Your task to perform on an android device: Add "acer predator" to the cart on bestbuy.com, then select checkout. Image 0: 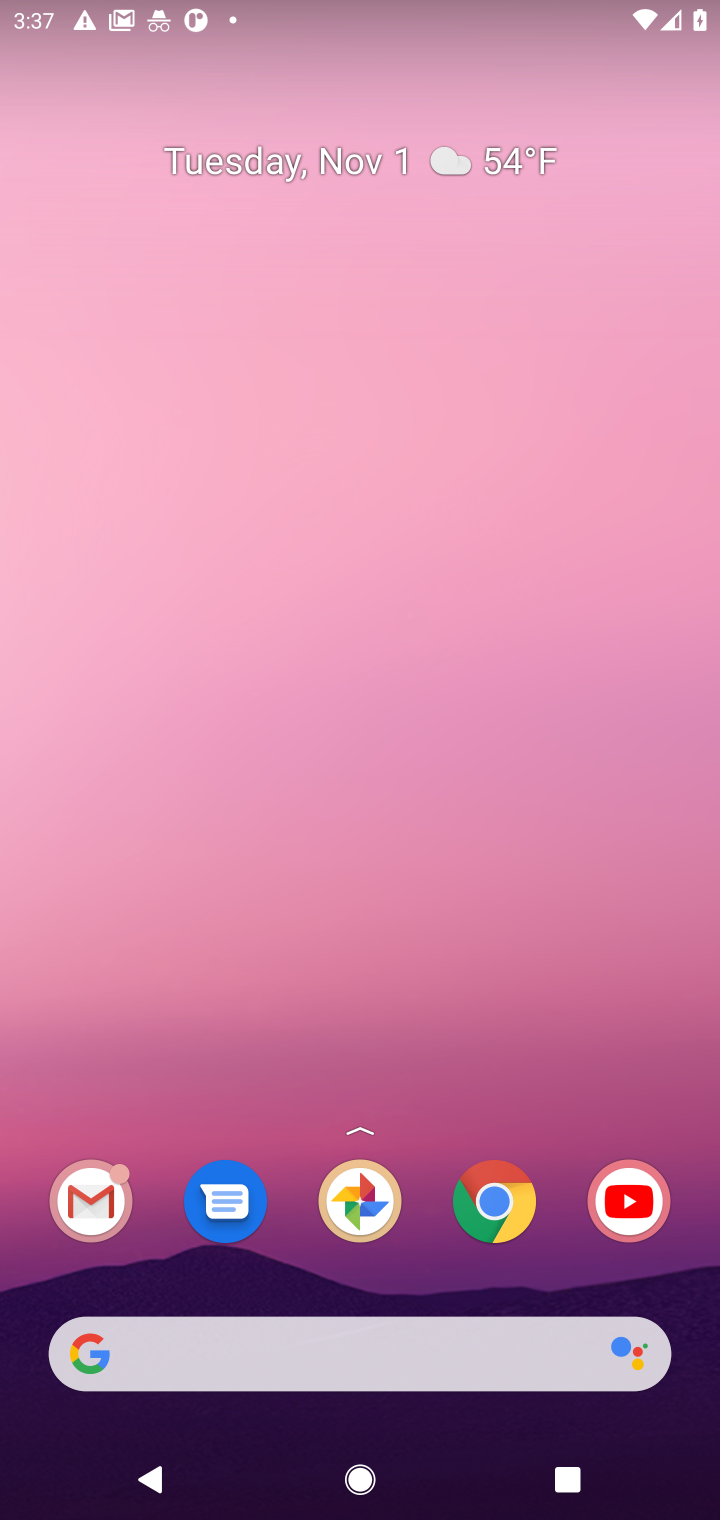
Step 0: drag from (290, 1039) to (310, 330)
Your task to perform on an android device: Add "acer predator" to the cart on bestbuy.com, then select checkout. Image 1: 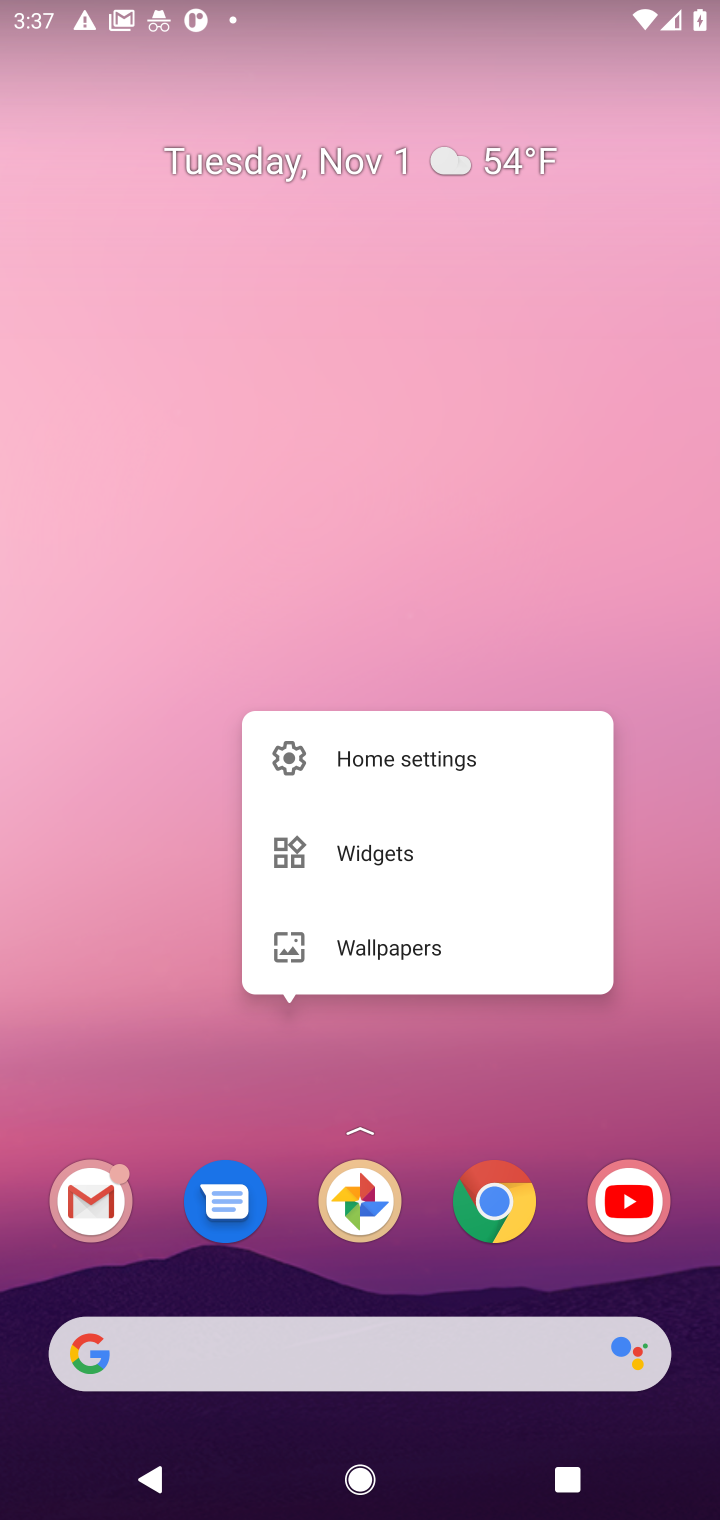
Step 1: click (191, 1076)
Your task to perform on an android device: Add "acer predator" to the cart on bestbuy.com, then select checkout. Image 2: 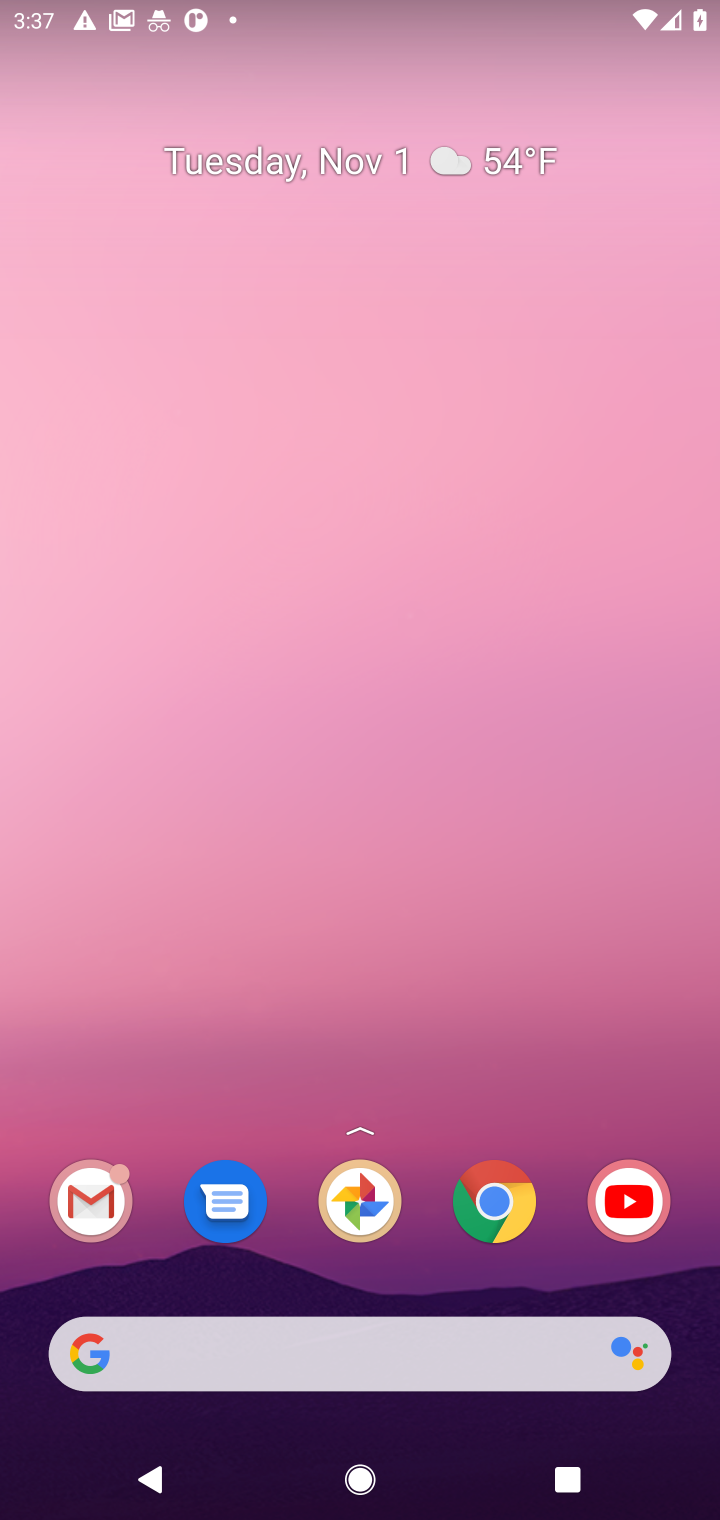
Step 2: drag from (340, 606) to (354, 372)
Your task to perform on an android device: Add "acer predator" to the cart on bestbuy.com, then select checkout. Image 3: 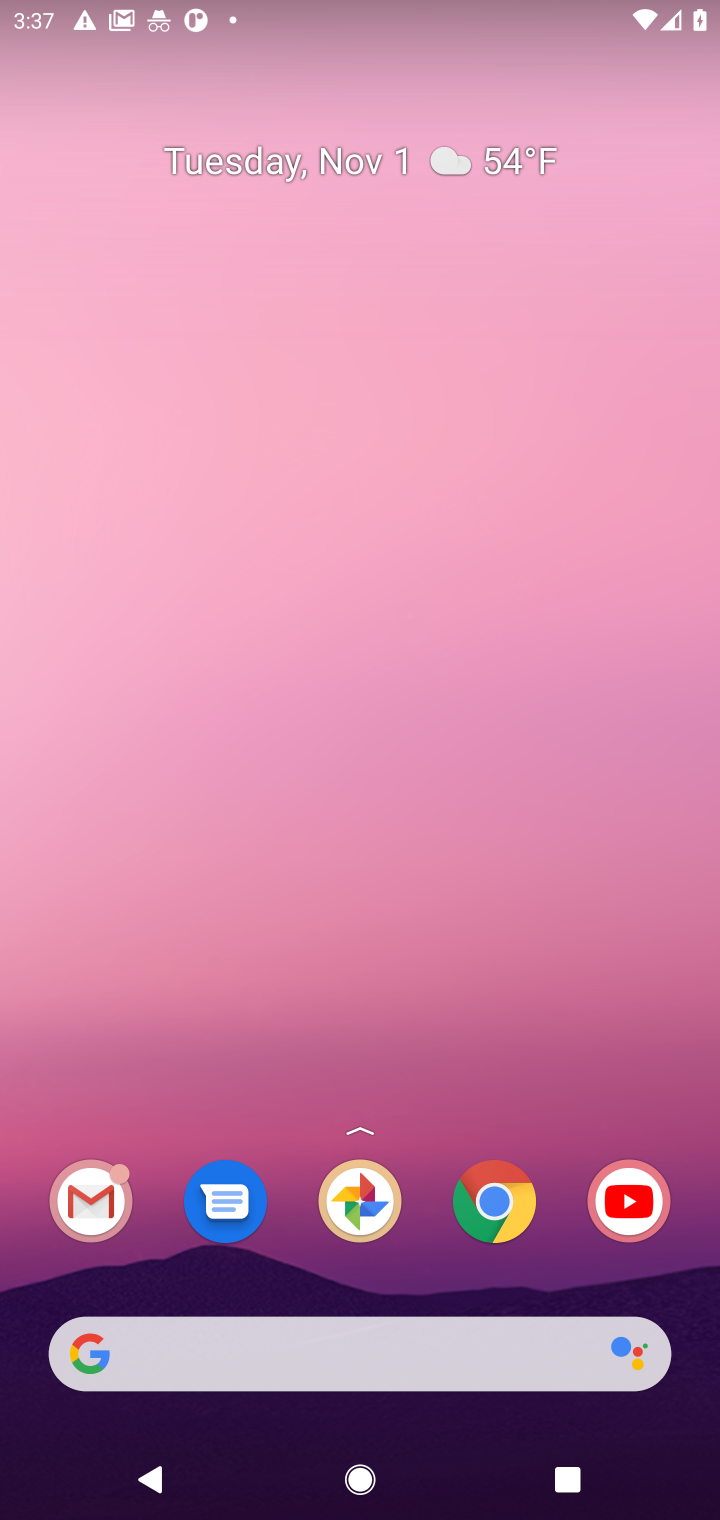
Step 3: drag from (268, 1261) to (387, 435)
Your task to perform on an android device: Add "acer predator" to the cart on bestbuy.com, then select checkout. Image 4: 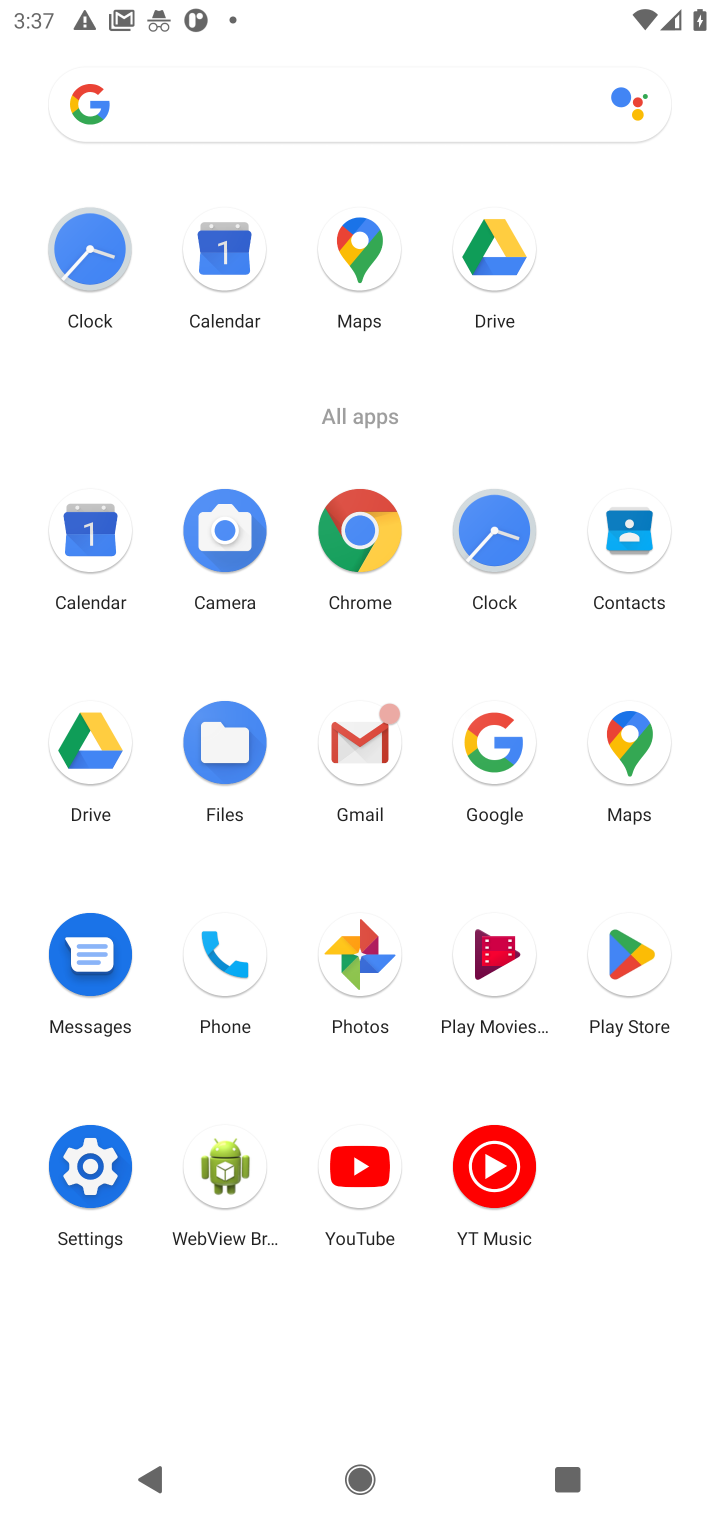
Step 4: click (498, 715)
Your task to perform on an android device: Add "acer predator" to the cart on bestbuy.com, then select checkout. Image 5: 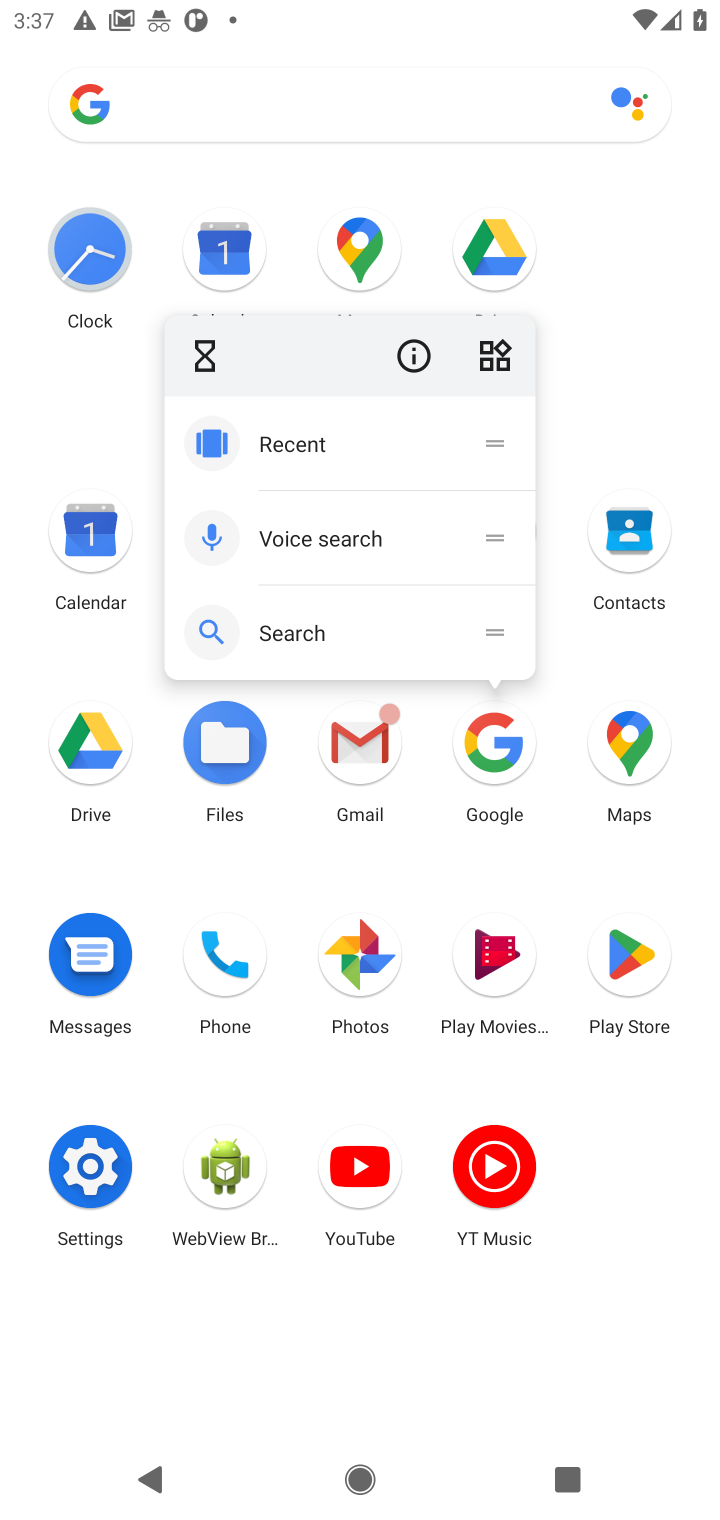
Step 5: click (490, 724)
Your task to perform on an android device: Add "acer predator" to the cart on bestbuy.com, then select checkout. Image 6: 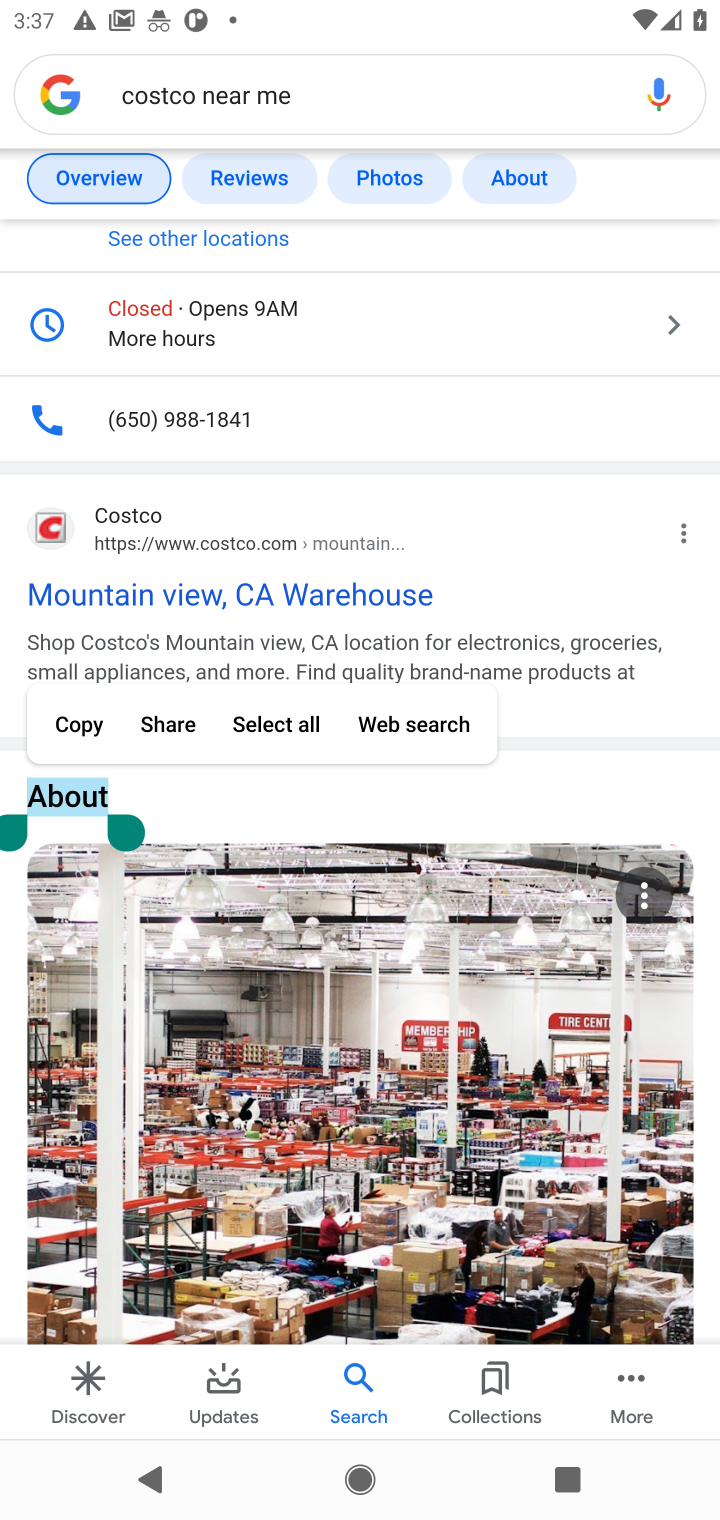
Step 6: click (375, 76)
Your task to perform on an android device: Add "acer predator" to the cart on bestbuy.com, then select checkout. Image 7: 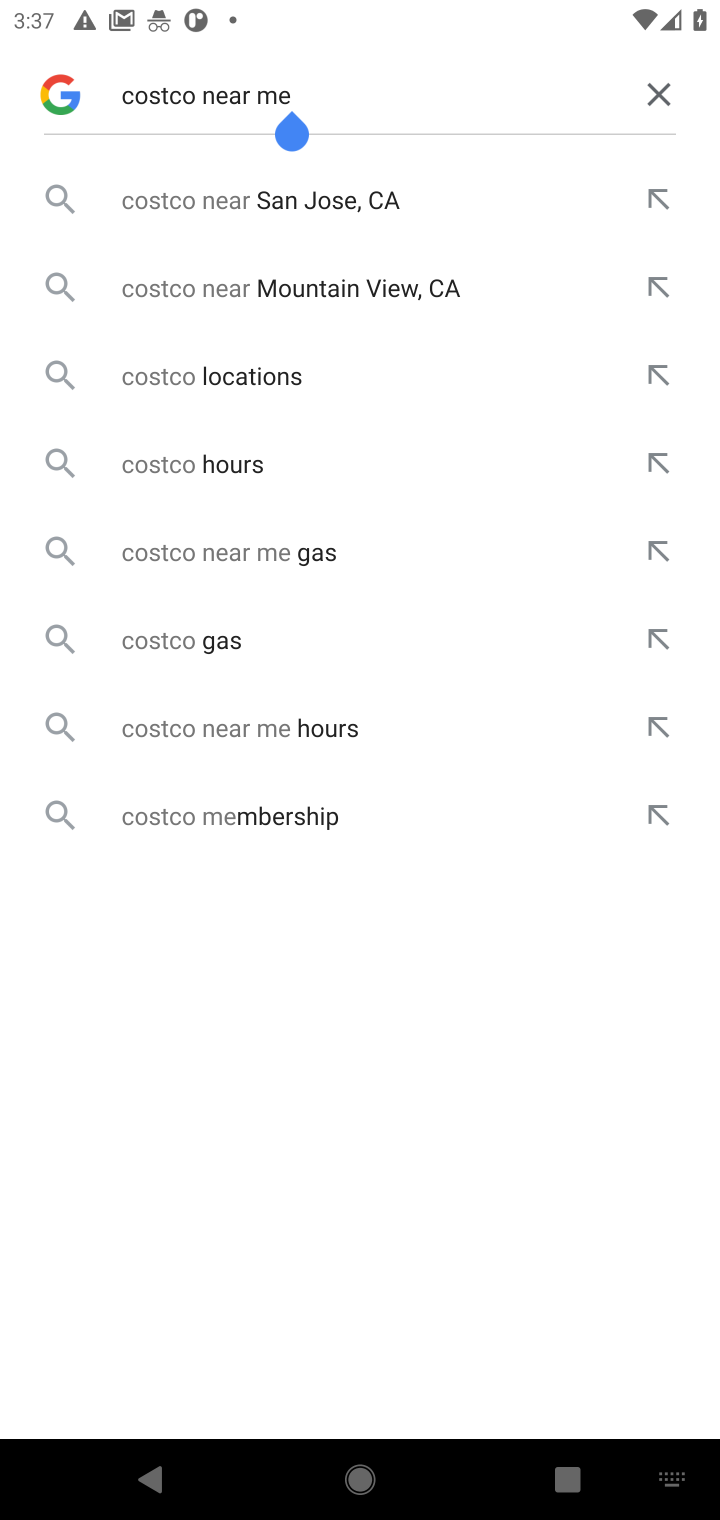
Step 7: click (637, 92)
Your task to perform on an android device: Add "acer predator" to the cart on bestbuy.com, then select checkout. Image 8: 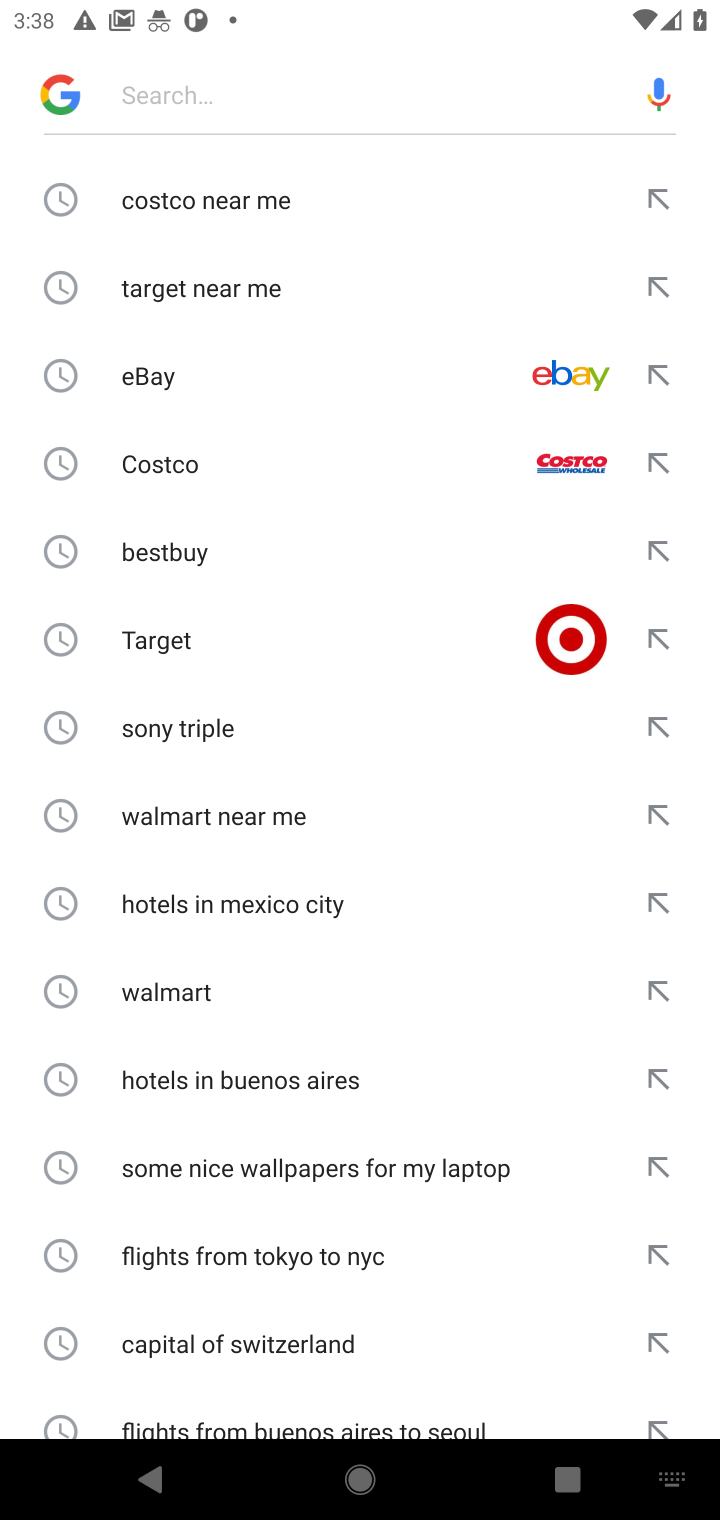
Step 8: click (293, 71)
Your task to perform on an android device: Add "acer predator" to the cart on bestbuy.com, then select checkout. Image 9: 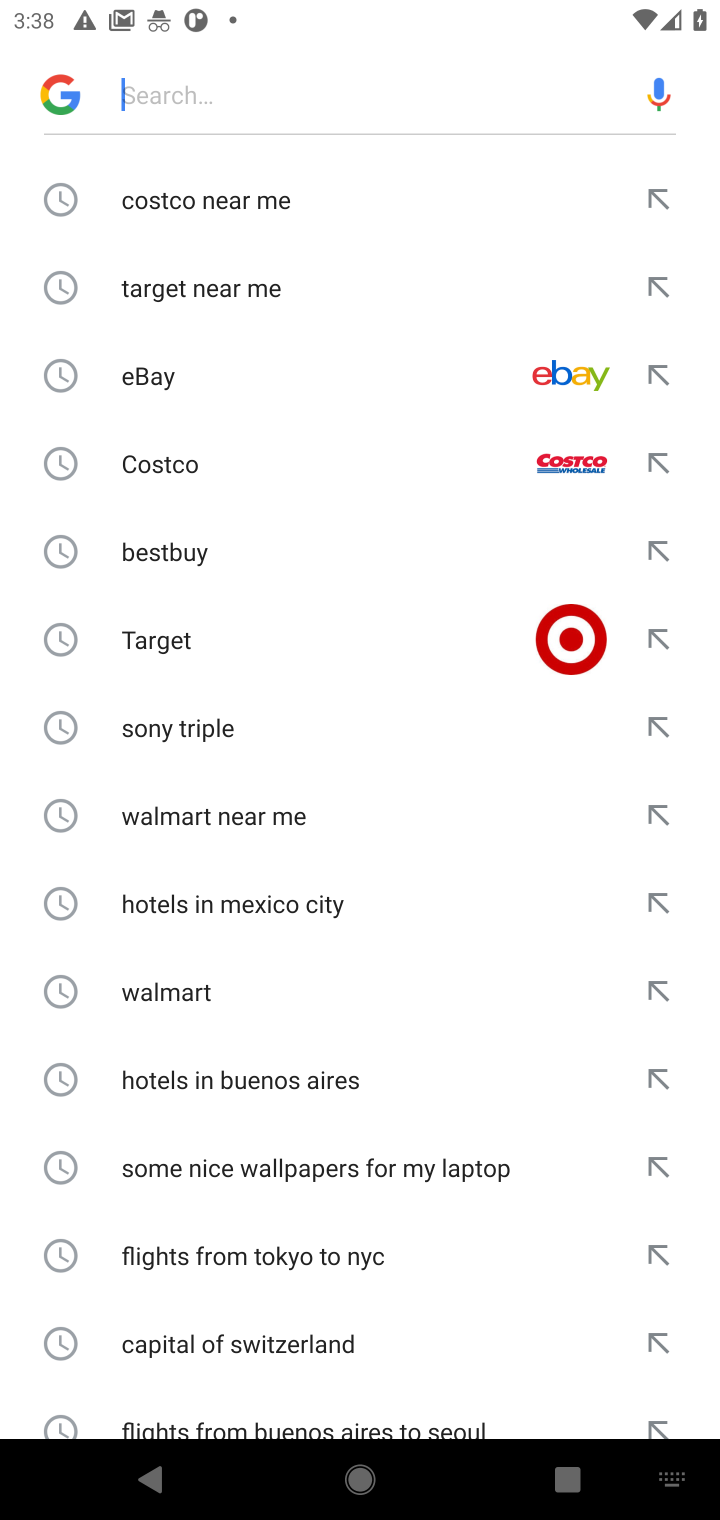
Step 9: type "bestbuy "
Your task to perform on an android device: Add "acer predator" to the cart on bestbuy.com, then select checkout. Image 10: 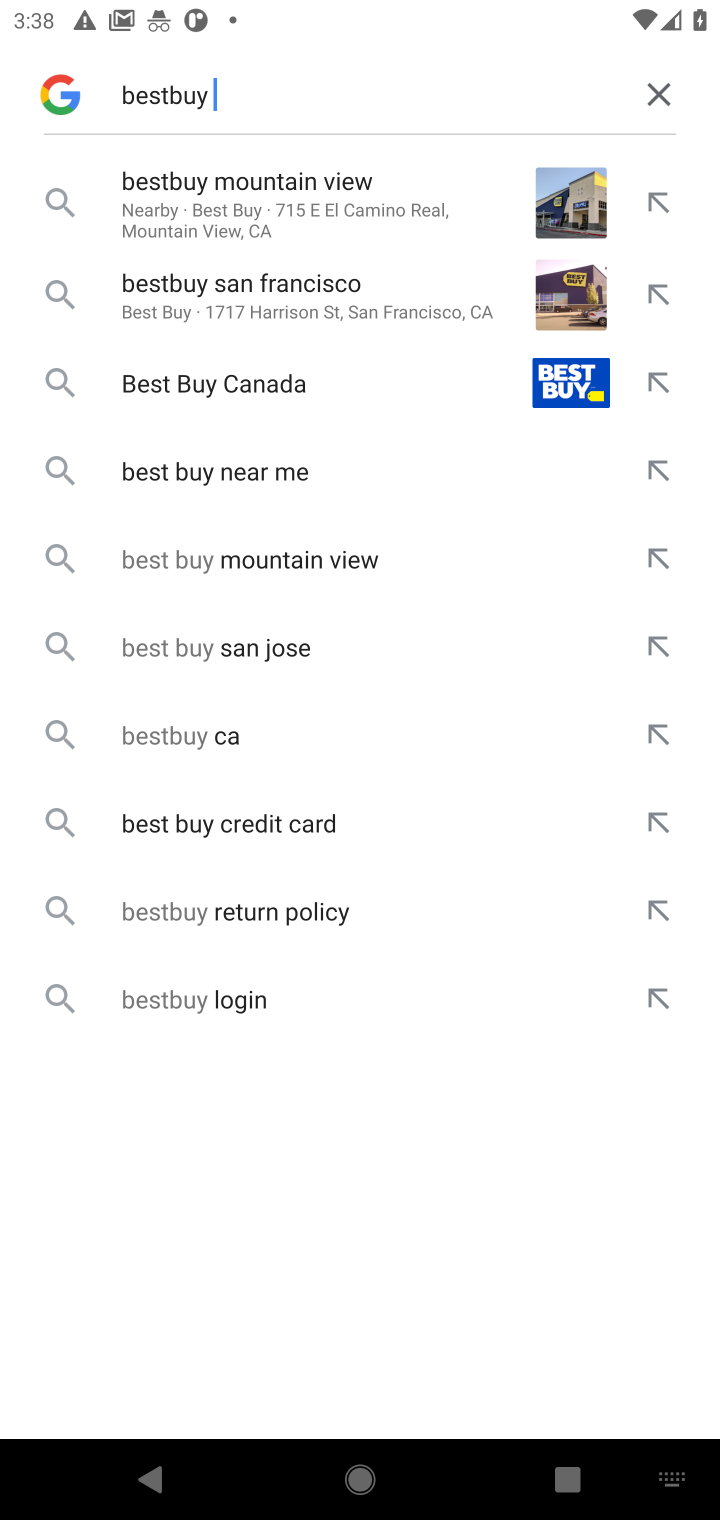
Step 10: click (200, 395)
Your task to perform on an android device: Add "acer predator" to the cart on bestbuy.com, then select checkout. Image 11: 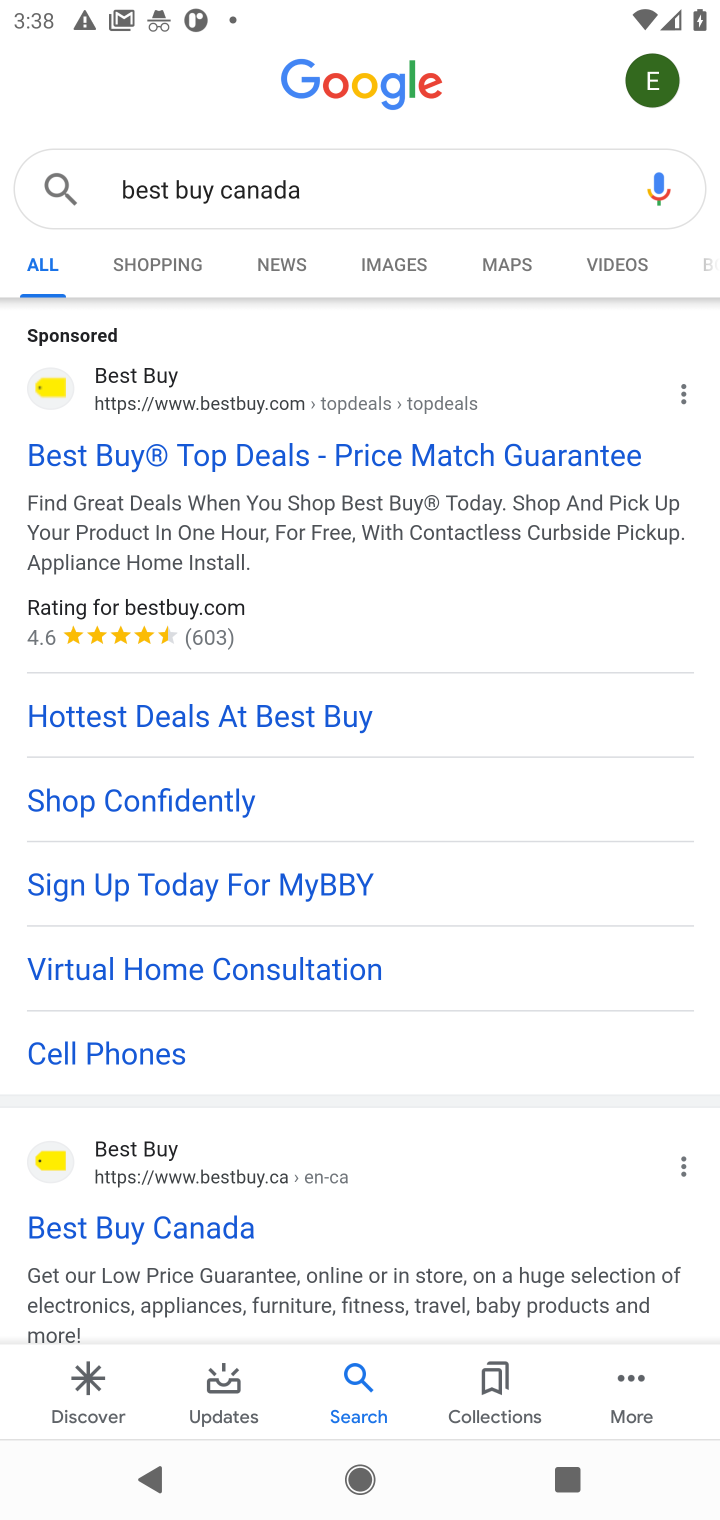
Step 11: click (163, 1224)
Your task to perform on an android device: Add "acer predator" to the cart on bestbuy.com, then select checkout. Image 12: 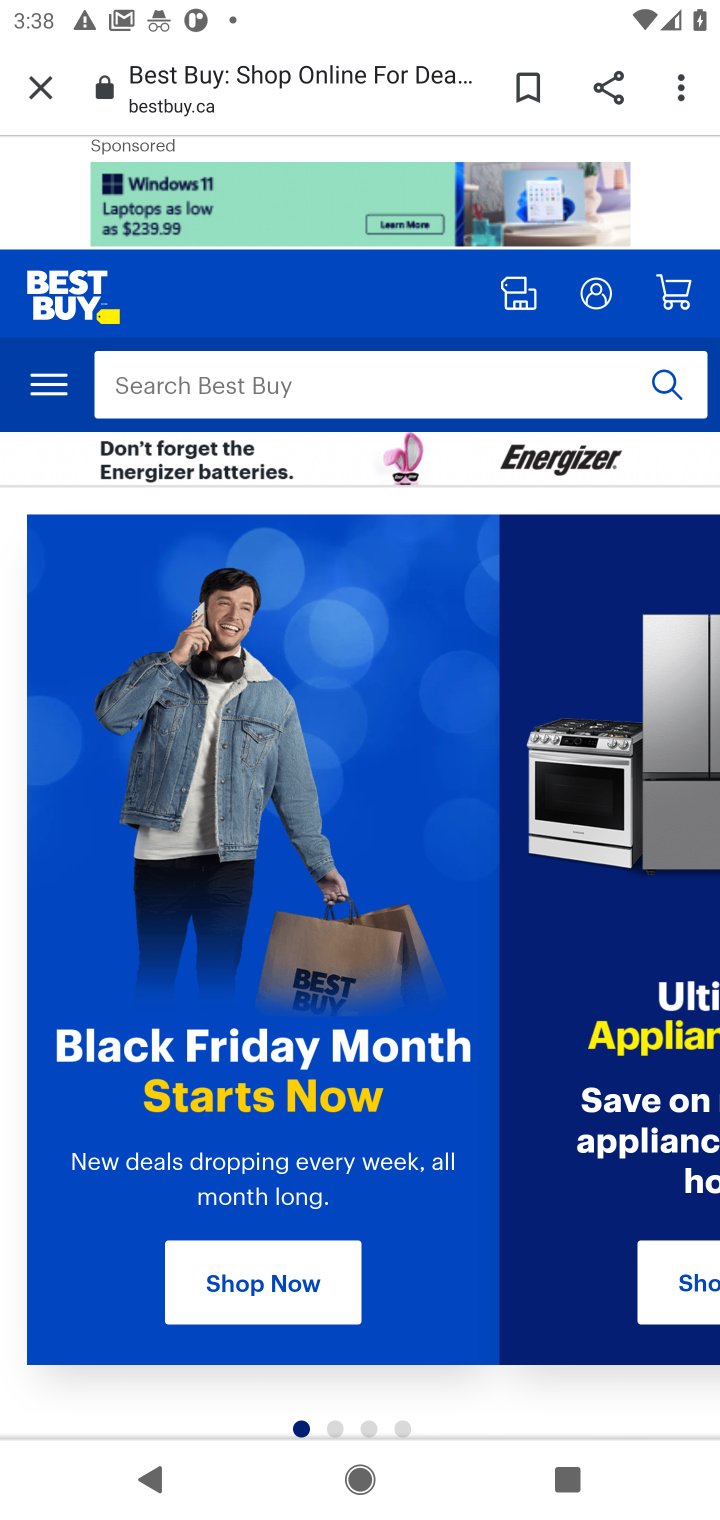
Step 12: click (476, 370)
Your task to perform on an android device: Add "acer predator" to the cart on bestbuy.com, then select checkout. Image 13: 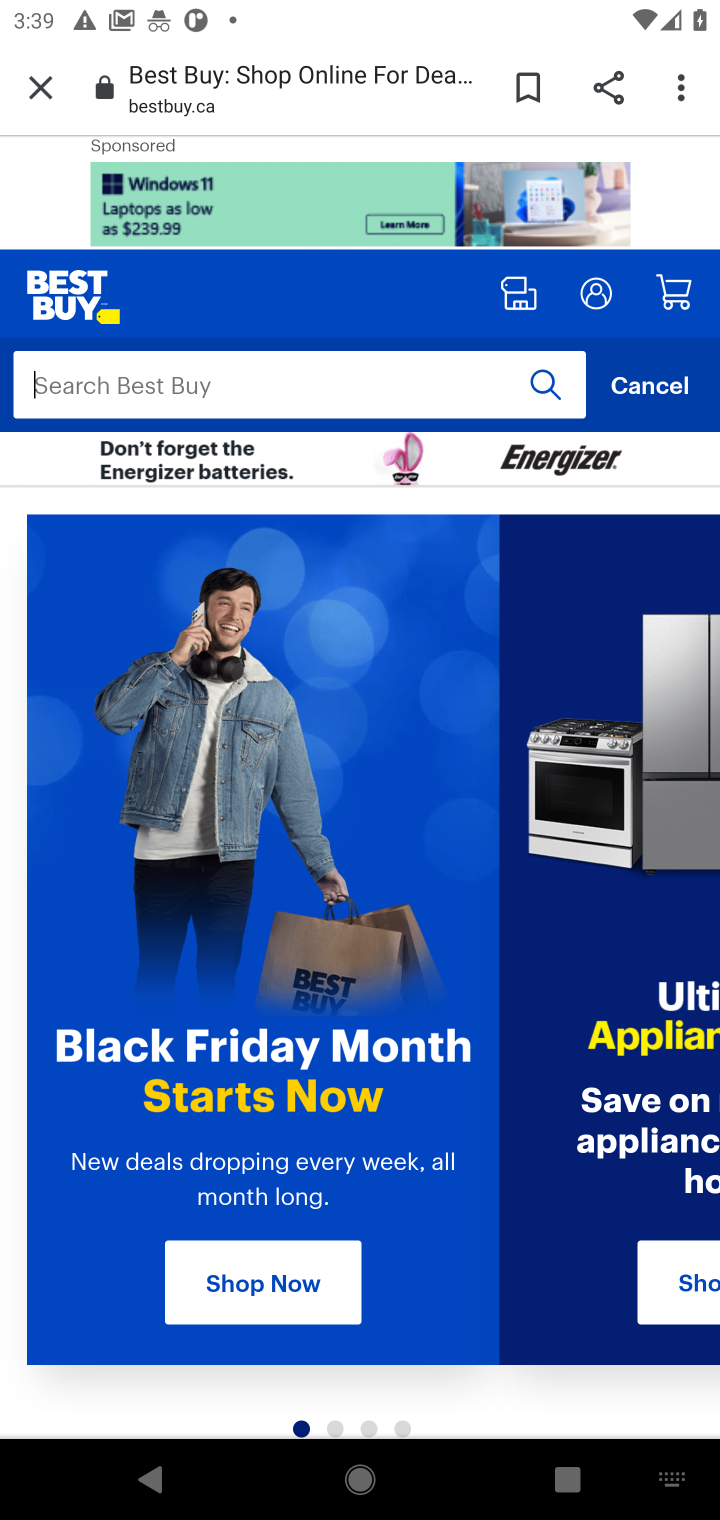
Step 13: type "acer predator "
Your task to perform on an android device: Add "acer predator" to the cart on bestbuy.com, then select checkout. Image 14: 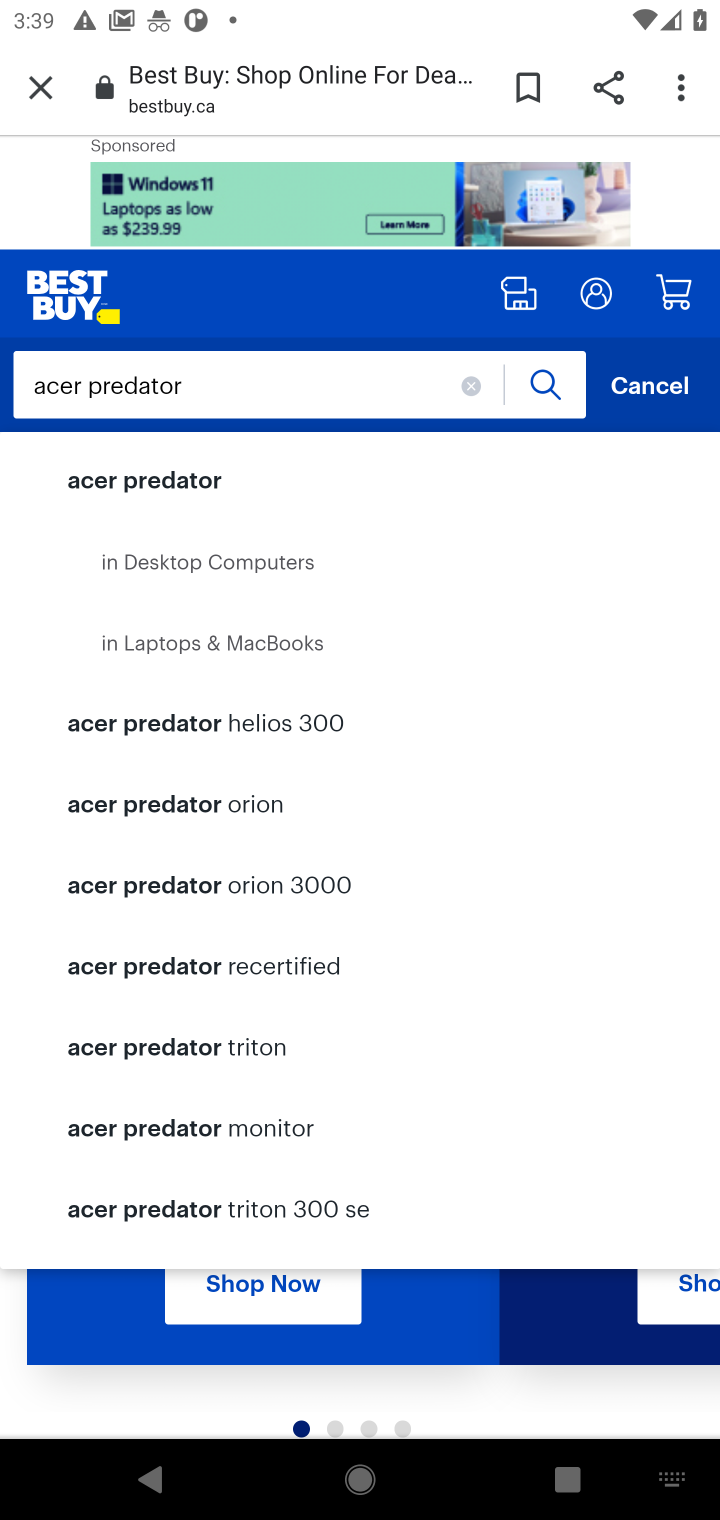
Step 14: click (138, 477)
Your task to perform on an android device: Add "acer predator" to the cart on bestbuy.com, then select checkout. Image 15: 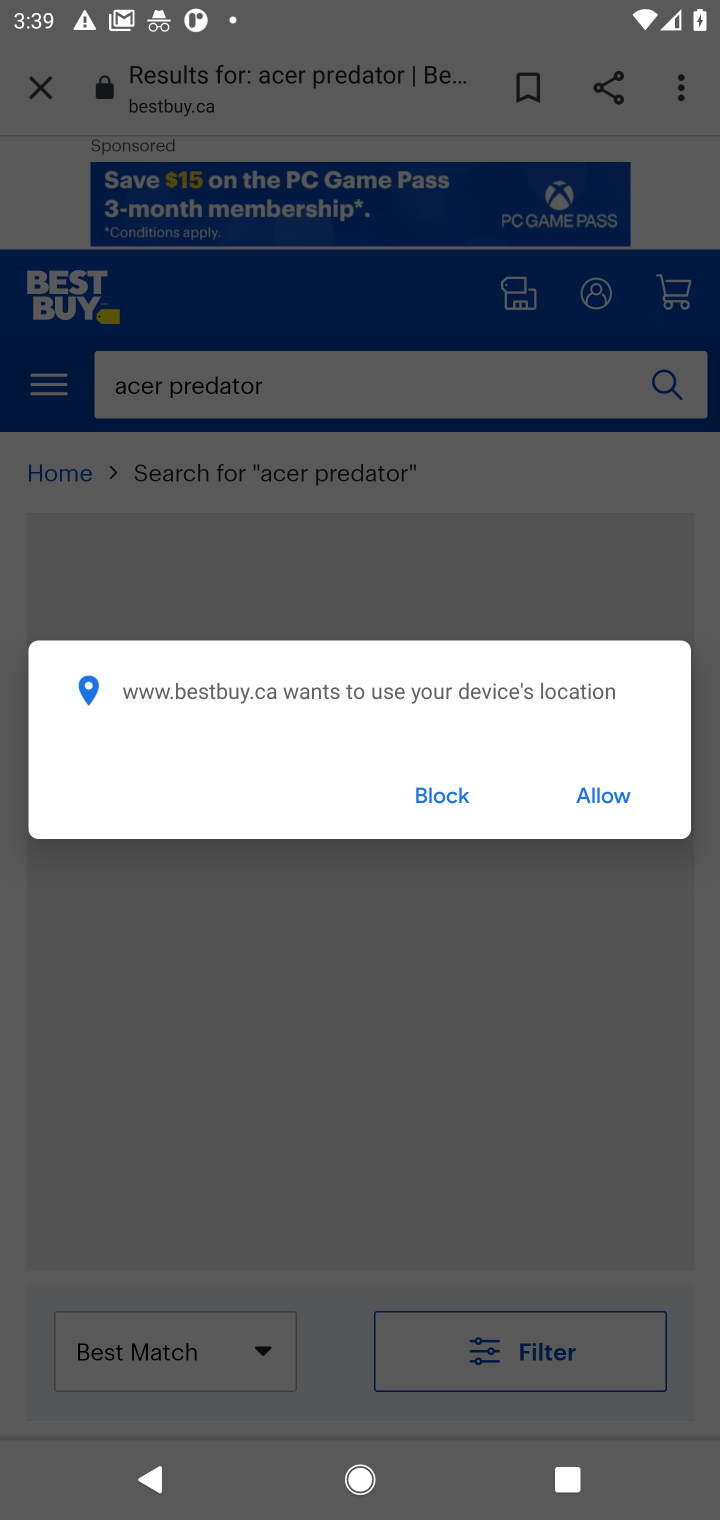
Step 15: click (617, 792)
Your task to perform on an android device: Add "acer predator" to the cart on bestbuy.com, then select checkout. Image 16: 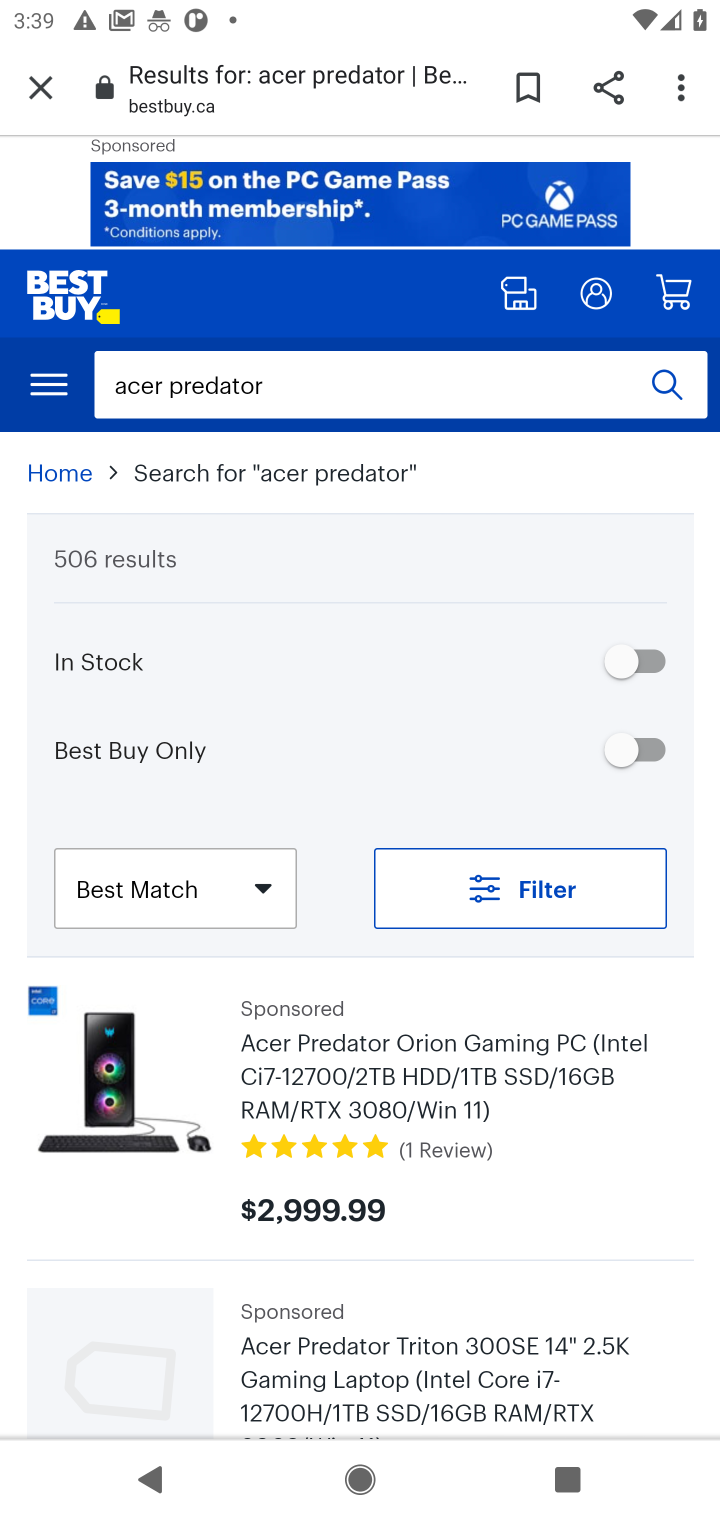
Step 16: click (664, 381)
Your task to perform on an android device: Add "acer predator" to the cart on bestbuy.com, then select checkout. Image 17: 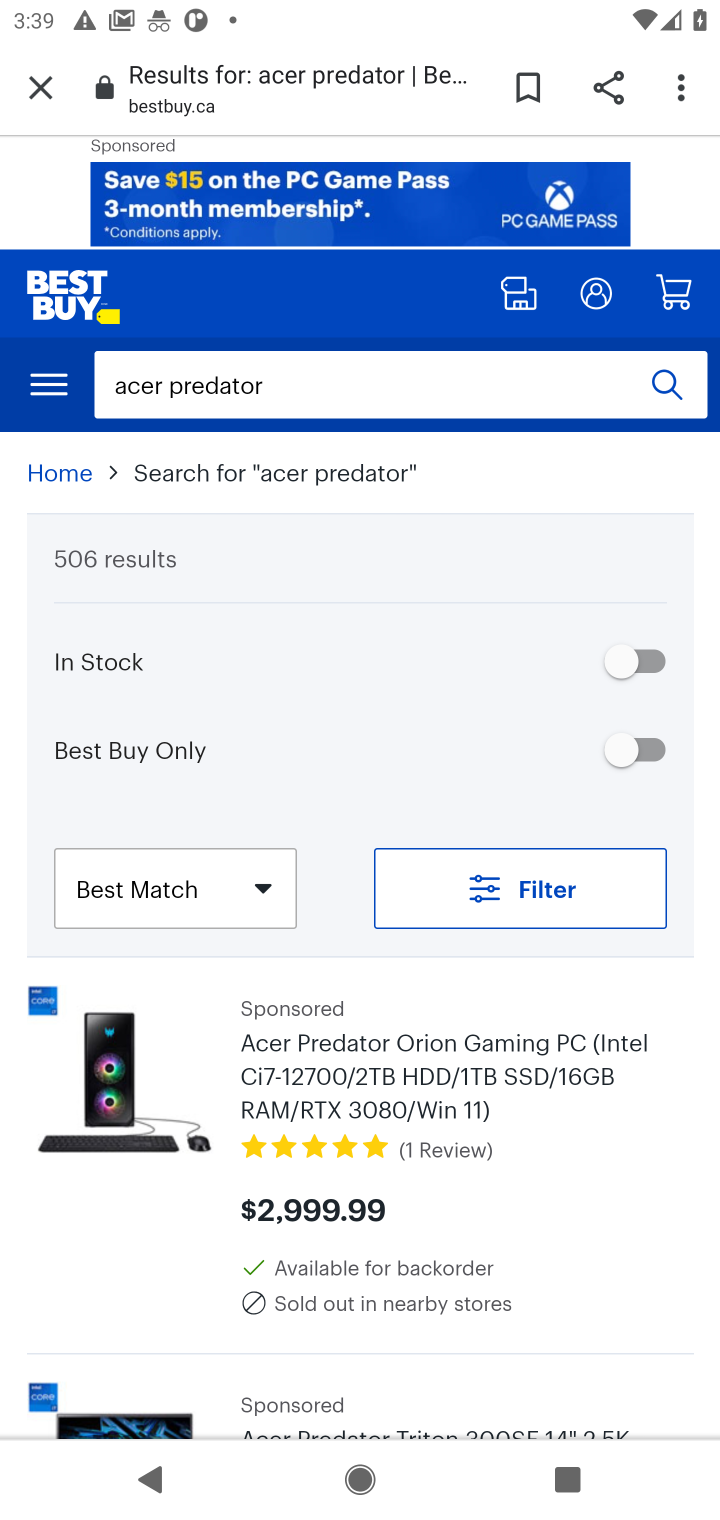
Step 17: drag from (528, 1376) to (585, 735)
Your task to perform on an android device: Add "acer predator" to the cart on bestbuy.com, then select checkout. Image 18: 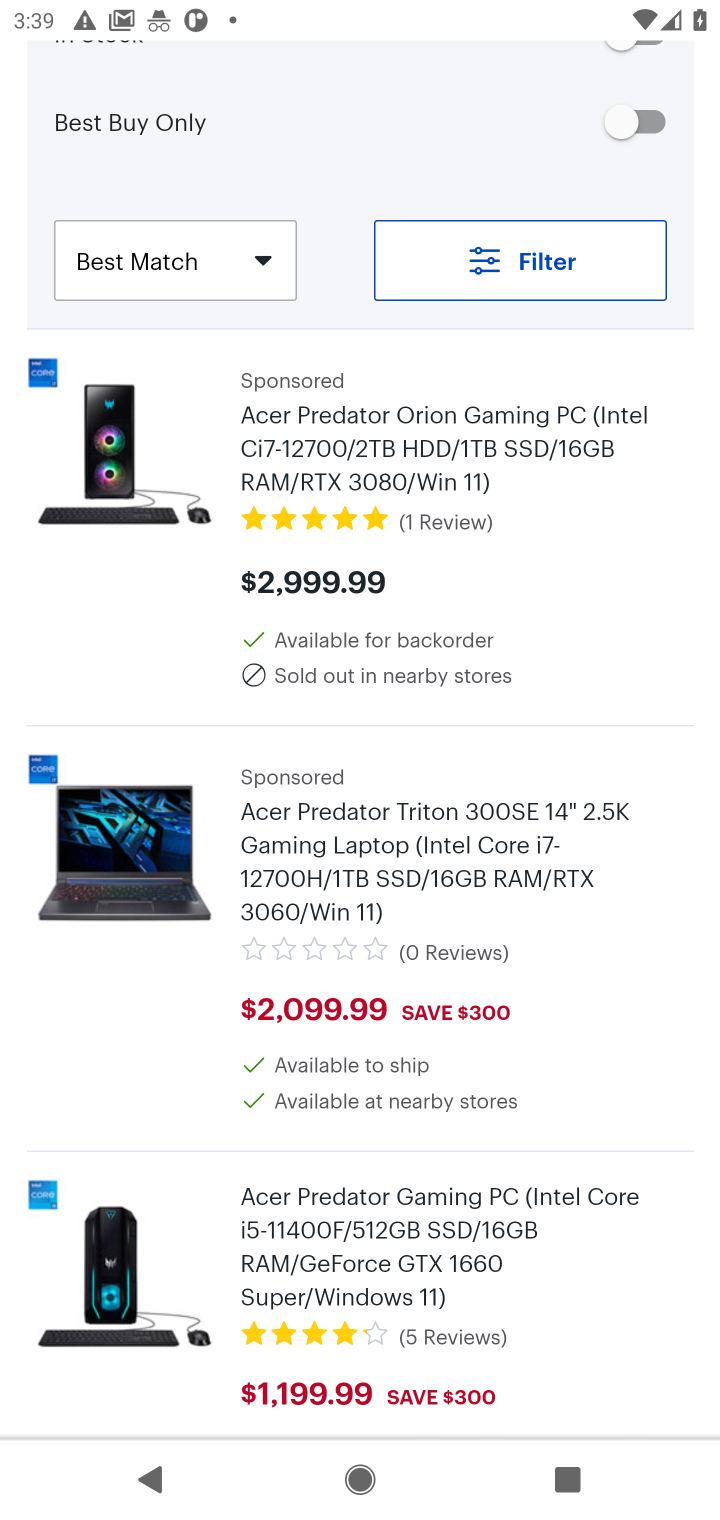
Step 18: click (289, 414)
Your task to perform on an android device: Add "acer predator" to the cart on bestbuy.com, then select checkout. Image 19: 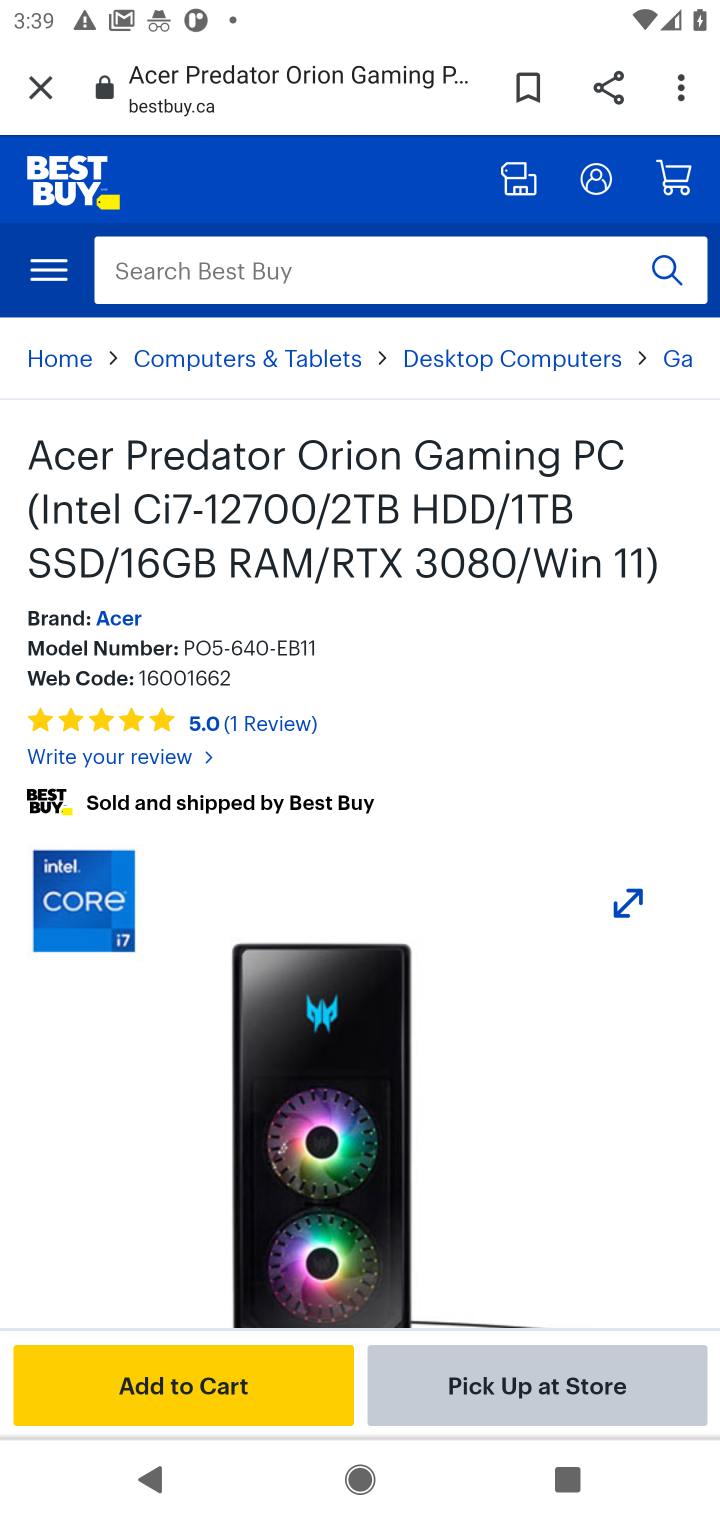
Step 19: click (193, 1390)
Your task to perform on an android device: Add "acer predator" to the cart on bestbuy.com, then select checkout. Image 20: 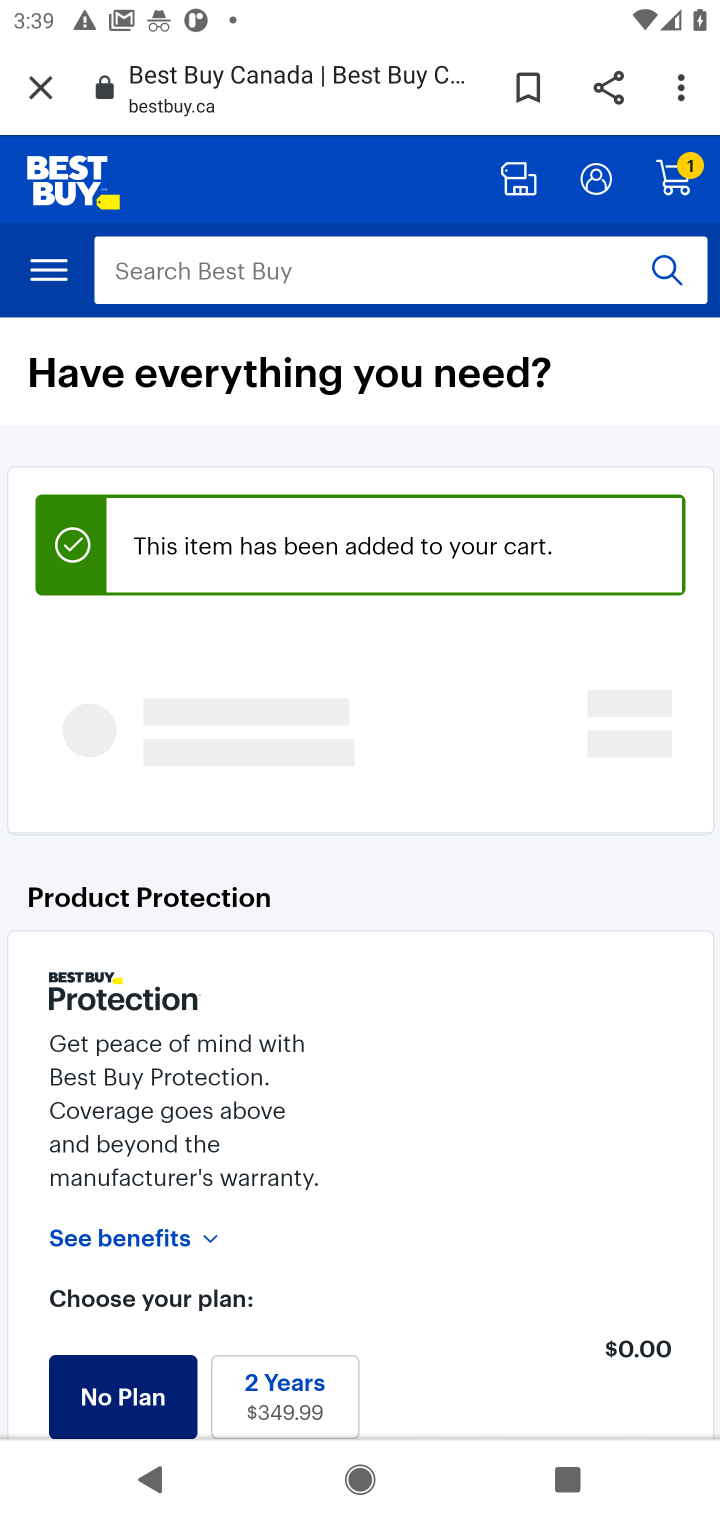
Step 20: task complete